Your task to perform on an android device: turn vacation reply on in the gmail app Image 0: 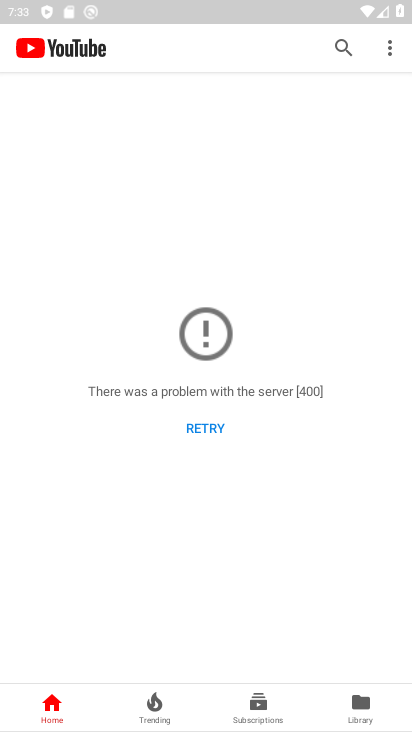
Step 0: press home button
Your task to perform on an android device: turn vacation reply on in the gmail app Image 1: 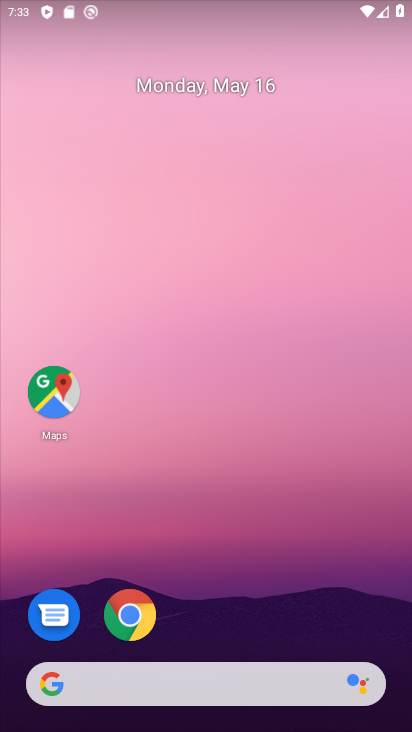
Step 1: drag from (127, 552) to (228, 104)
Your task to perform on an android device: turn vacation reply on in the gmail app Image 2: 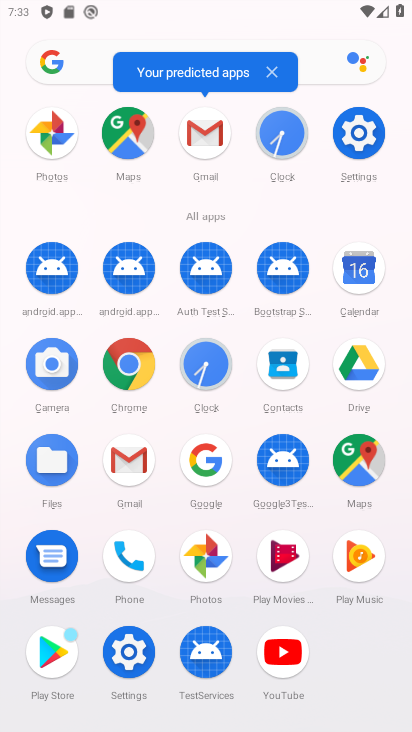
Step 2: click (147, 461)
Your task to perform on an android device: turn vacation reply on in the gmail app Image 3: 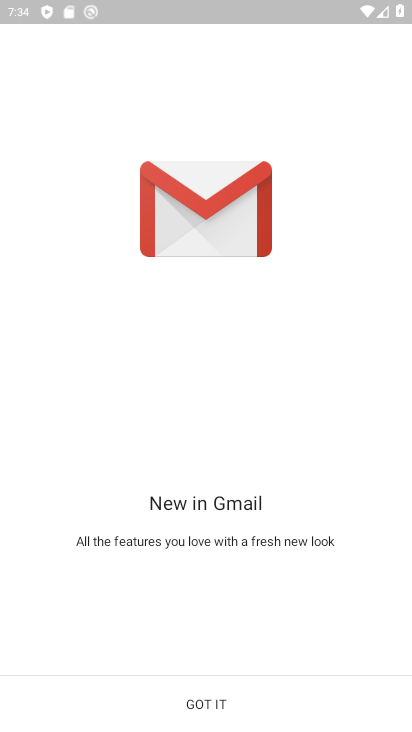
Step 3: click (180, 730)
Your task to perform on an android device: turn vacation reply on in the gmail app Image 4: 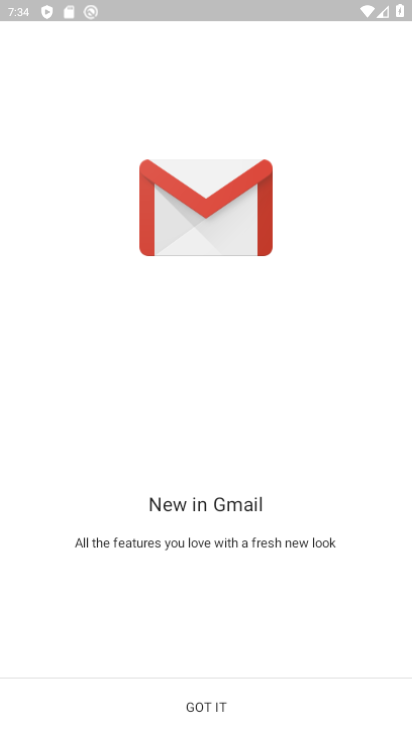
Step 4: click (181, 723)
Your task to perform on an android device: turn vacation reply on in the gmail app Image 5: 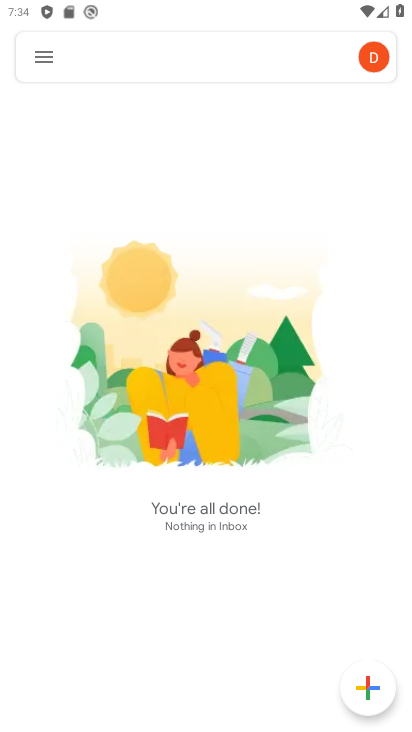
Step 5: click (41, 68)
Your task to perform on an android device: turn vacation reply on in the gmail app Image 6: 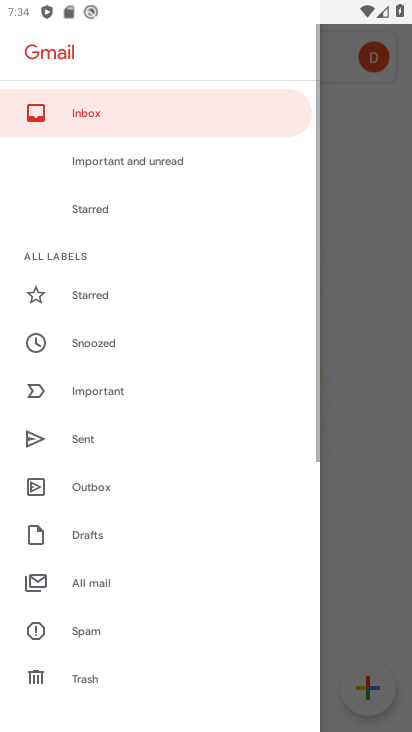
Step 6: drag from (146, 573) to (102, 78)
Your task to perform on an android device: turn vacation reply on in the gmail app Image 7: 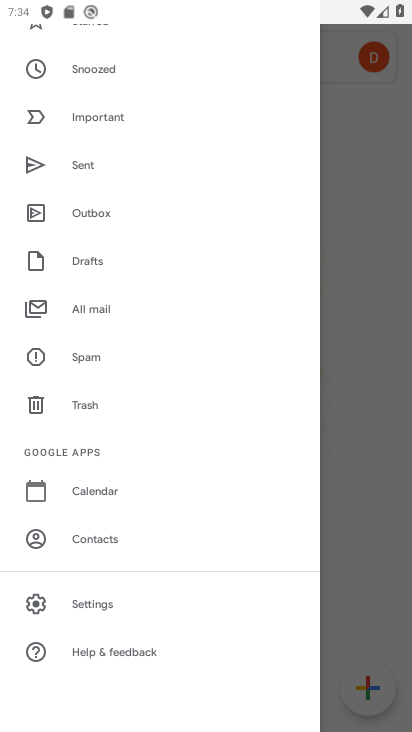
Step 7: click (112, 624)
Your task to perform on an android device: turn vacation reply on in the gmail app Image 8: 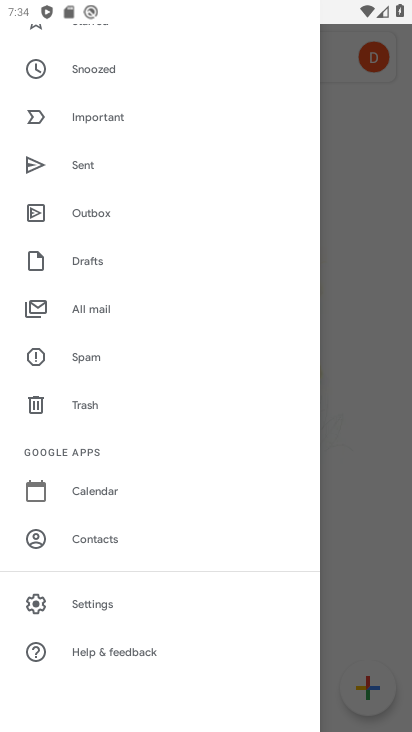
Step 8: click (82, 602)
Your task to perform on an android device: turn vacation reply on in the gmail app Image 9: 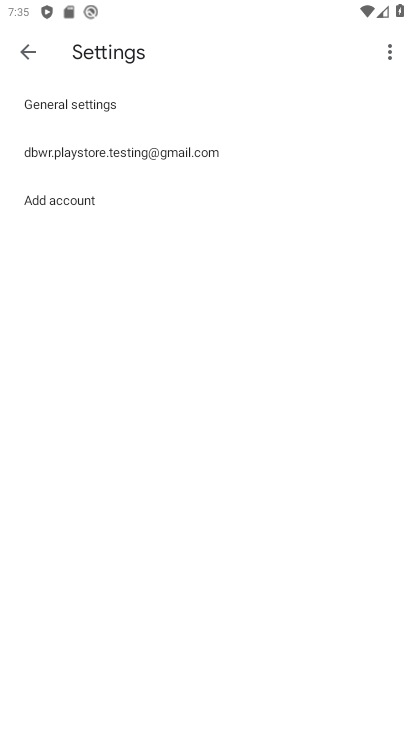
Step 9: click (142, 141)
Your task to perform on an android device: turn vacation reply on in the gmail app Image 10: 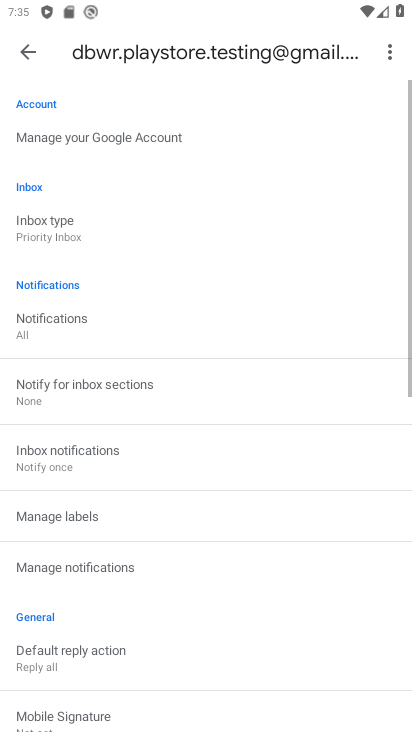
Step 10: drag from (178, 556) to (182, 44)
Your task to perform on an android device: turn vacation reply on in the gmail app Image 11: 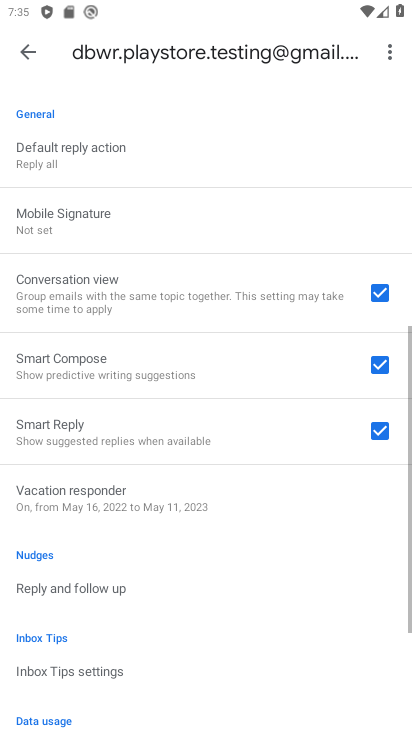
Step 11: drag from (185, 457) to (196, 205)
Your task to perform on an android device: turn vacation reply on in the gmail app Image 12: 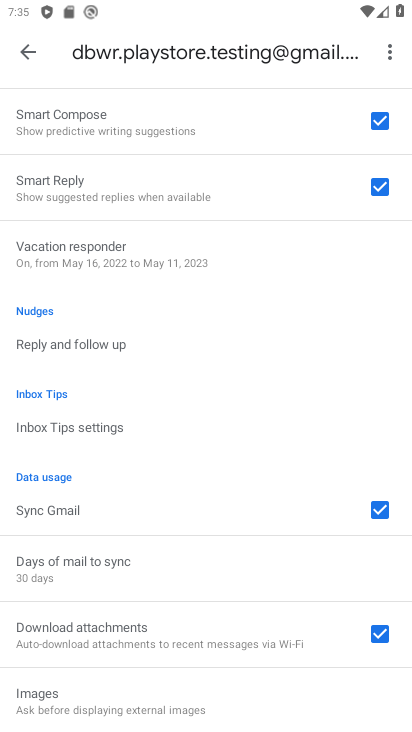
Step 12: click (132, 267)
Your task to perform on an android device: turn vacation reply on in the gmail app Image 13: 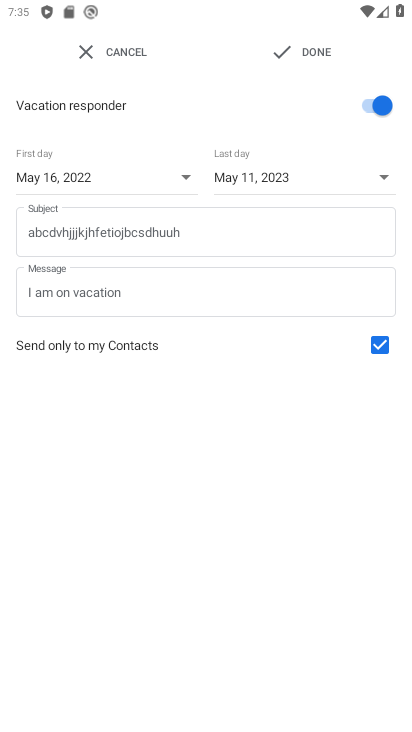
Step 13: task complete